Your task to perform on an android device: Check the news Image 0: 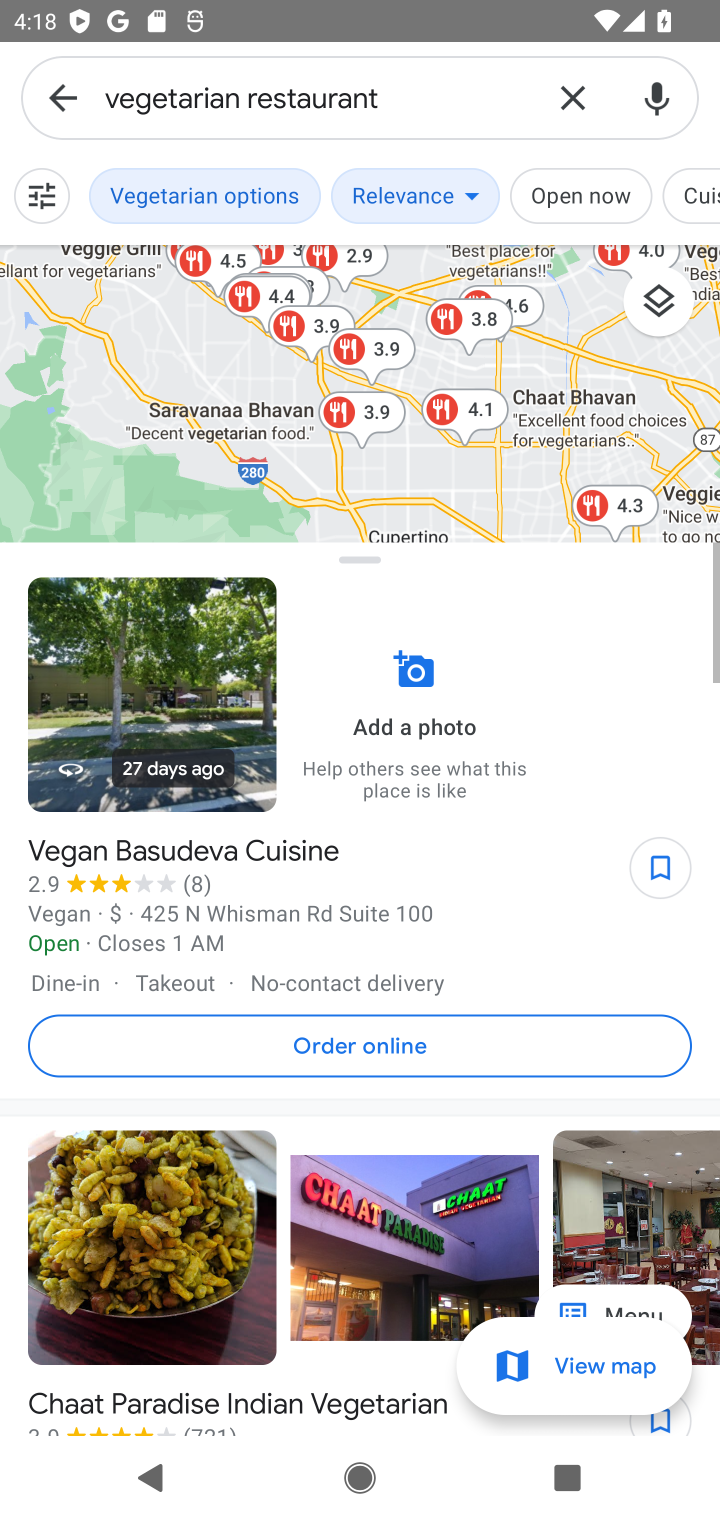
Step 0: press home button
Your task to perform on an android device: Check the news Image 1: 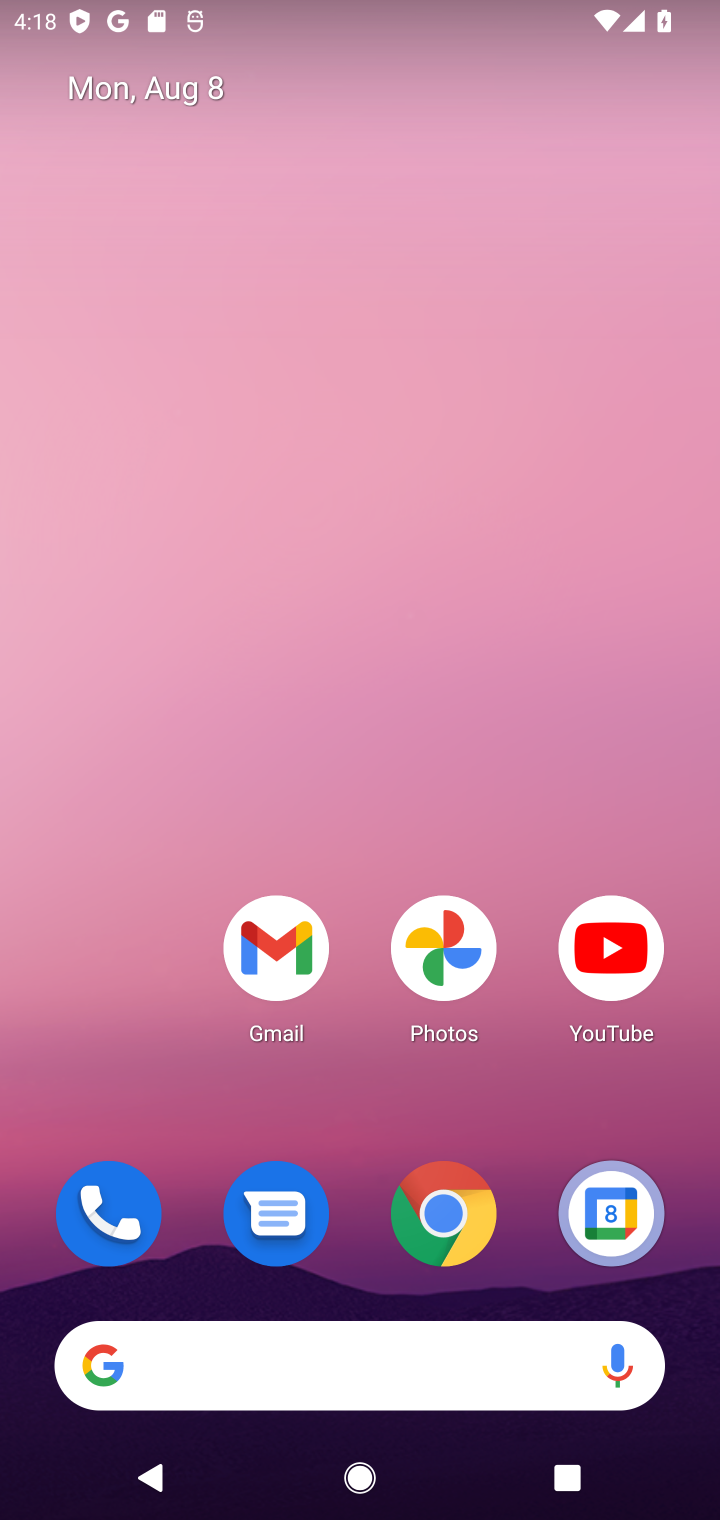
Step 1: click (281, 1390)
Your task to perform on an android device: Check the news Image 2: 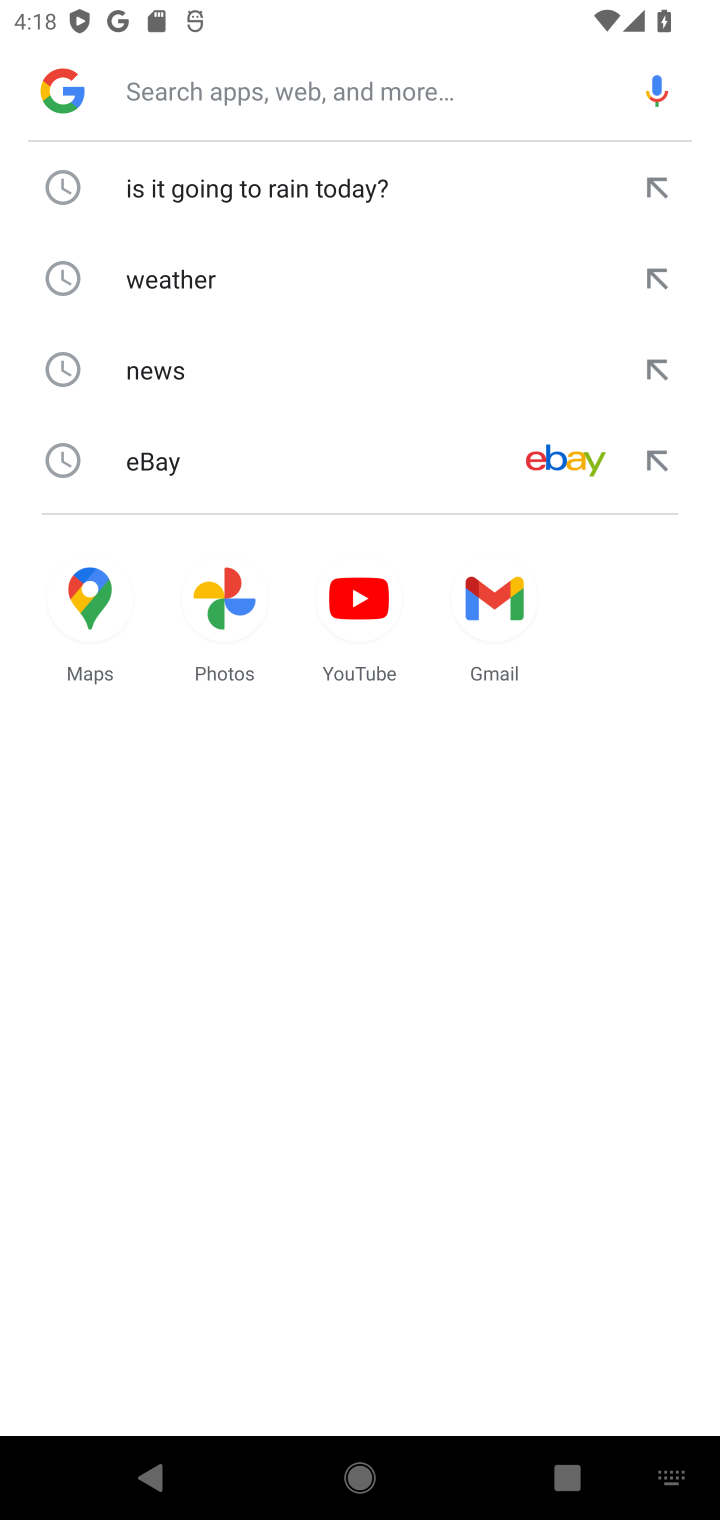
Step 2: click (250, 86)
Your task to perform on an android device: Check the news Image 3: 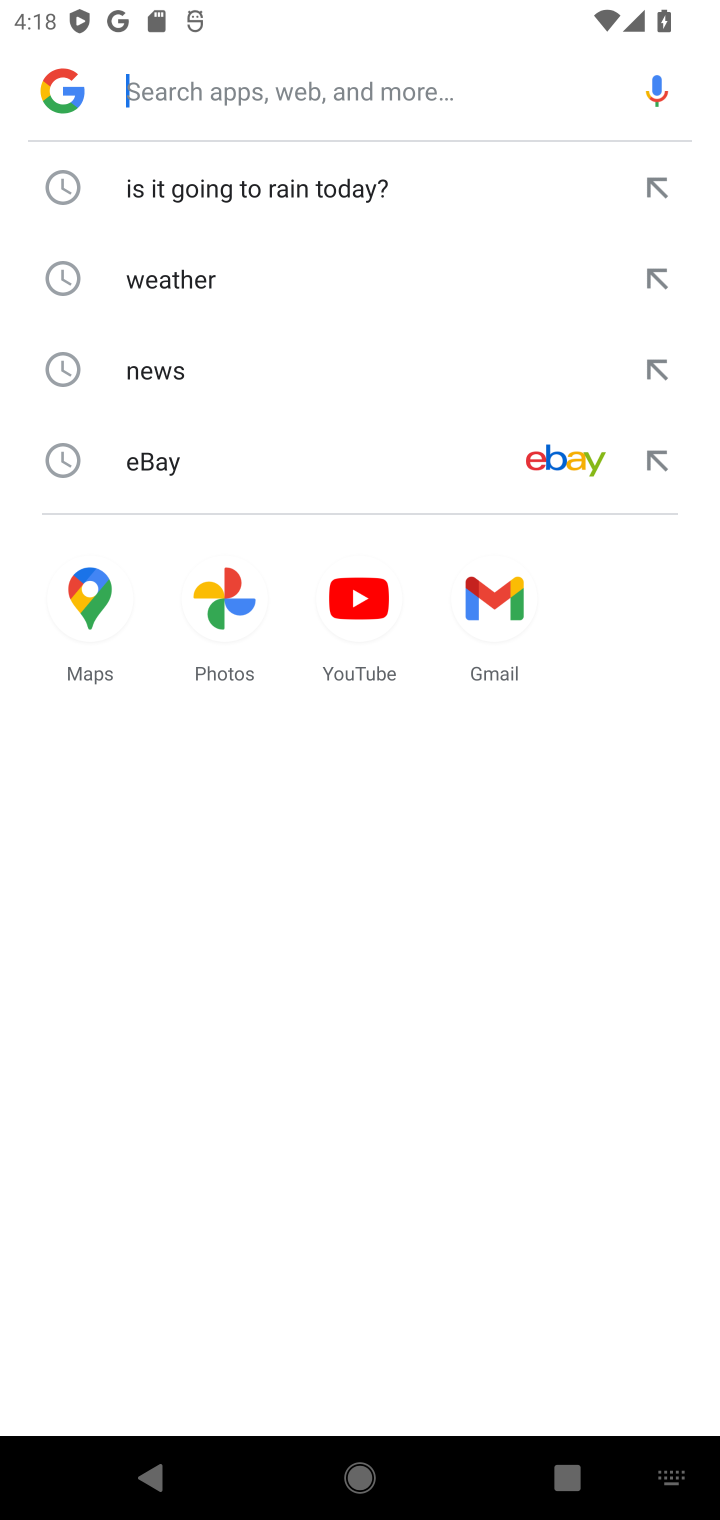
Step 3: type "news"
Your task to perform on an android device: Check the news Image 4: 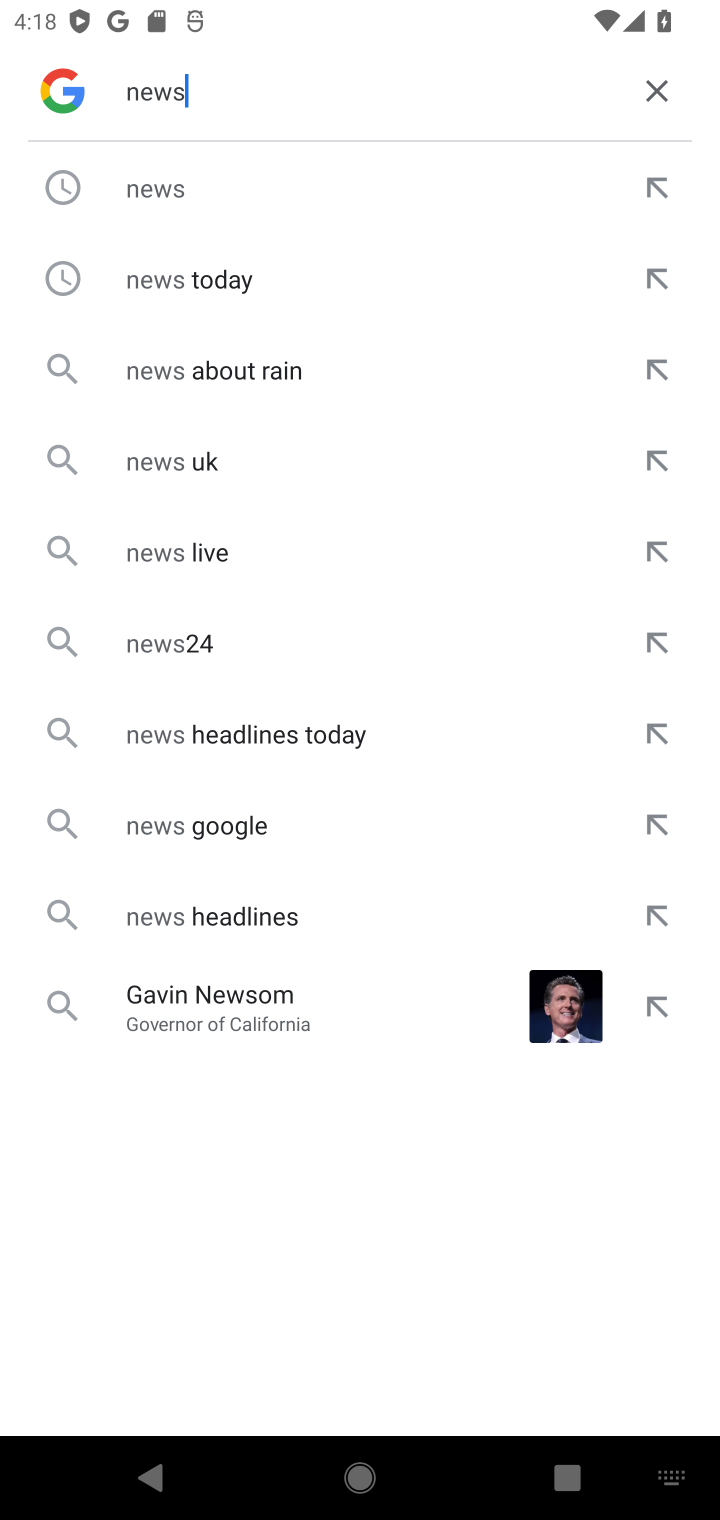
Step 4: click (226, 192)
Your task to perform on an android device: Check the news Image 5: 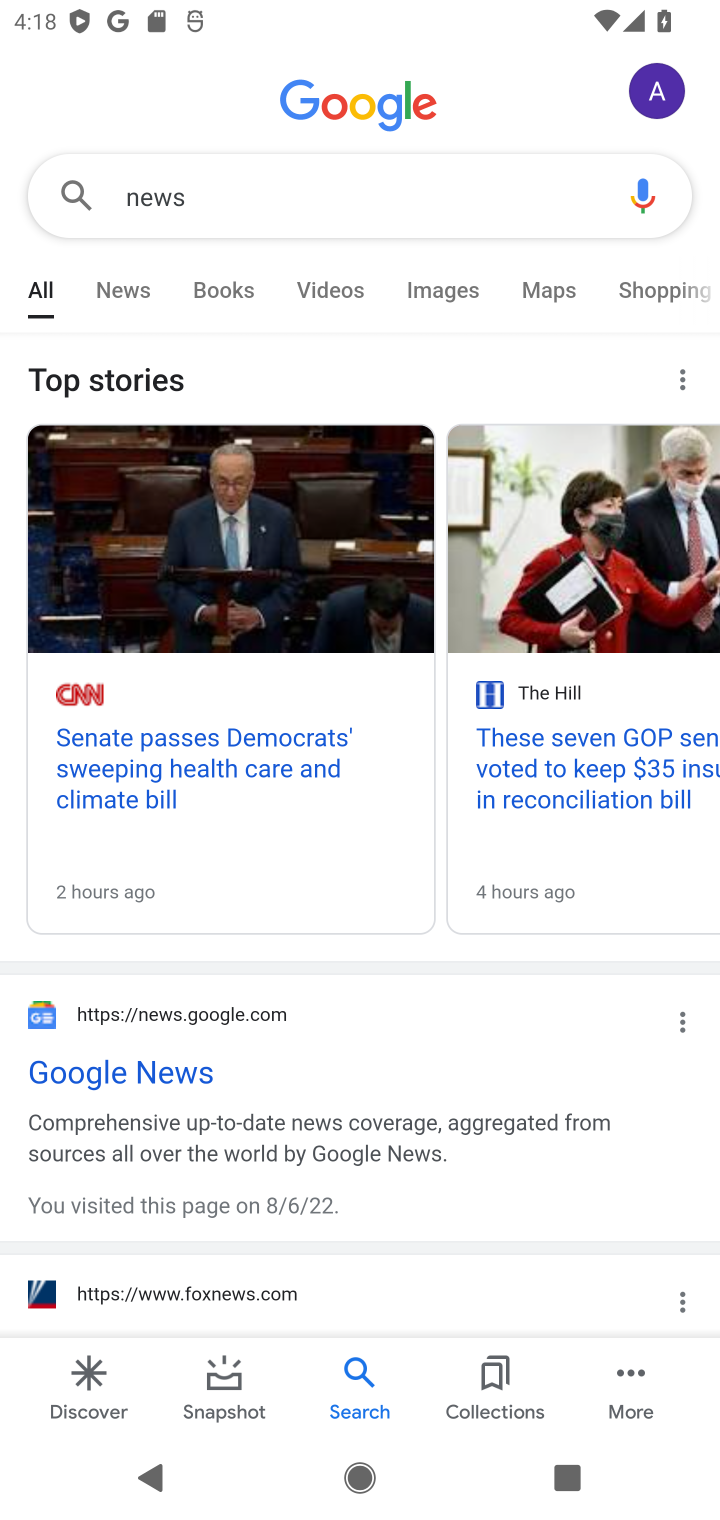
Step 5: click (120, 300)
Your task to perform on an android device: Check the news Image 6: 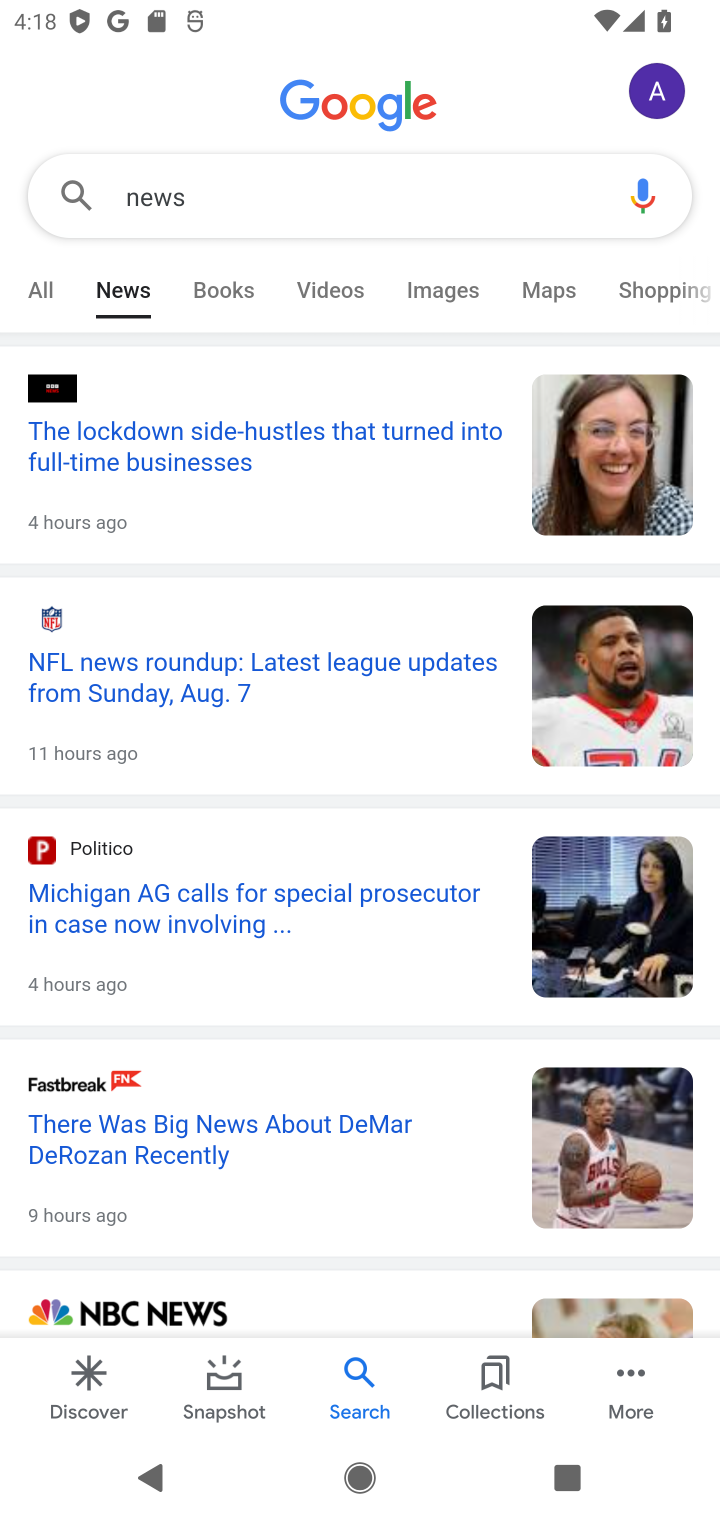
Step 6: task complete